Your task to perform on an android device: move a message to another label in the gmail app Image 0: 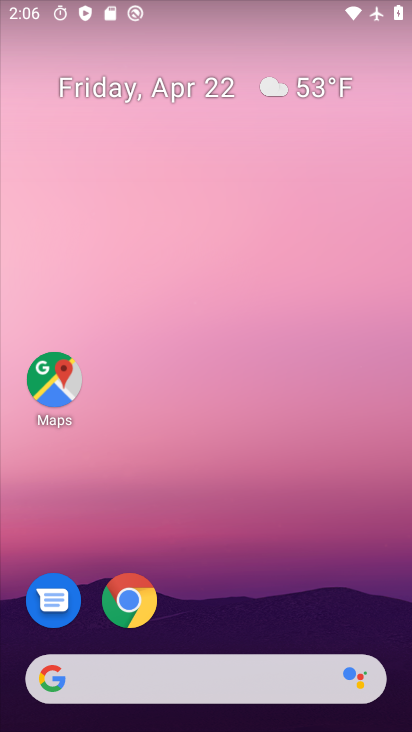
Step 0: drag from (220, 719) to (223, 91)
Your task to perform on an android device: move a message to another label in the gmail app Image 1: 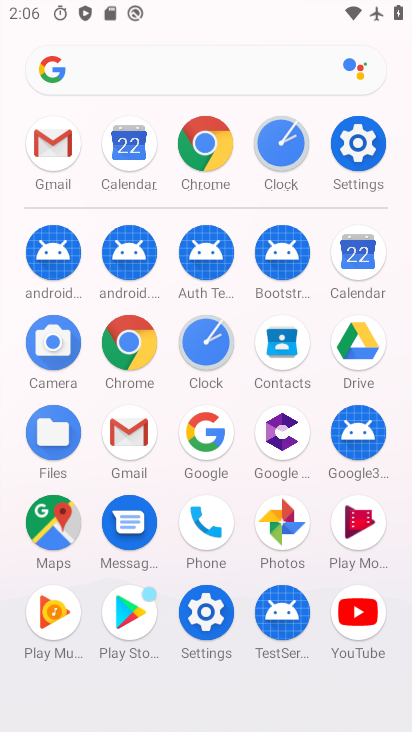
Step 1: click (118, 437)
Your task to perform on an android device: move a message to another label in the gmail app Image 2: 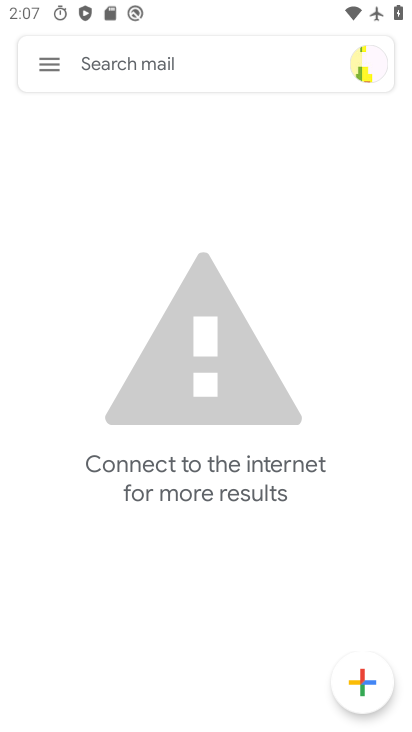
Step 2: task complete